Your task to perform on an android device: Check the weather Image 0: 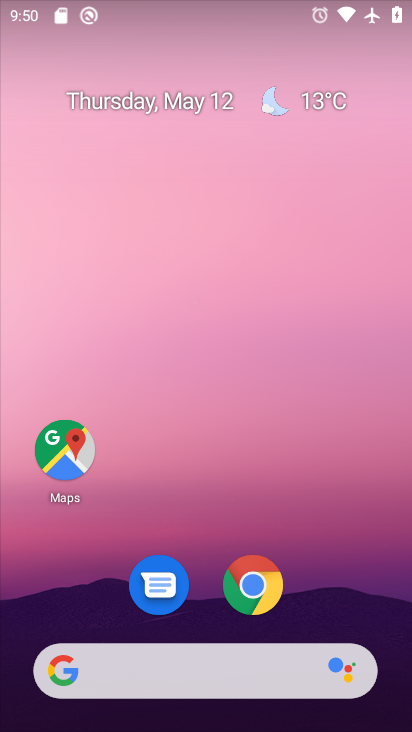
Step 0: click (300, 90)
Your task to perform on an android device: Check the weather Image 1: 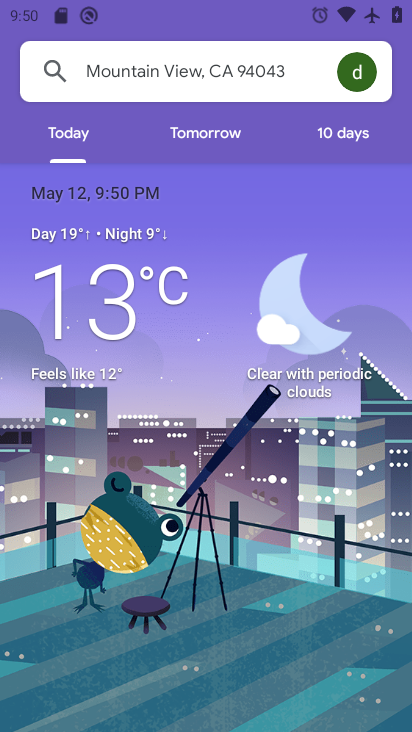
Step 1: task complete